Your task to perform on an android device: toggle data saver in the chrome app Image 0: 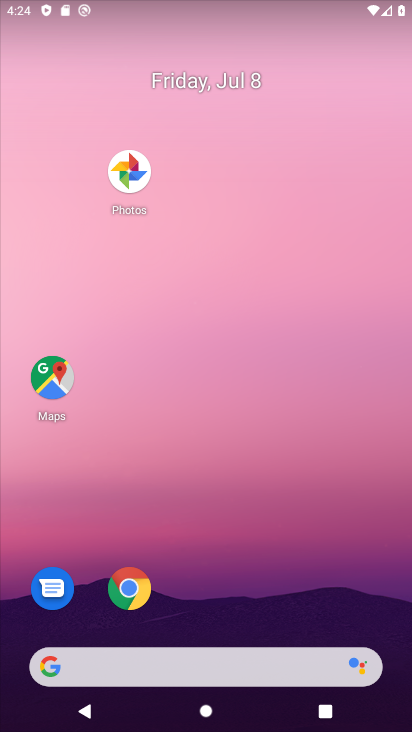
Step 0: drag from (248, 729) to (186, 2)
Your task to perform on an android device: toggle data saver in the chrome app Image 1: 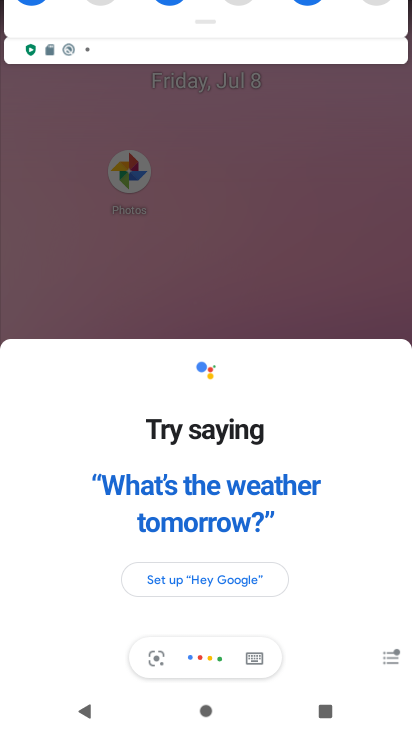
Step 1: click (292, 206)
Your task to perform on an android device: toggle data saver in the chrome app Image 2: 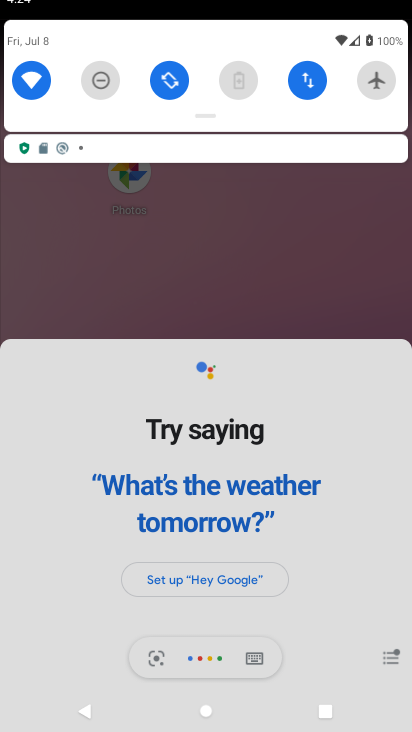
Step 2: press back button
Your task to perform on an android device: toggle data saver in the chrome app Image 3: 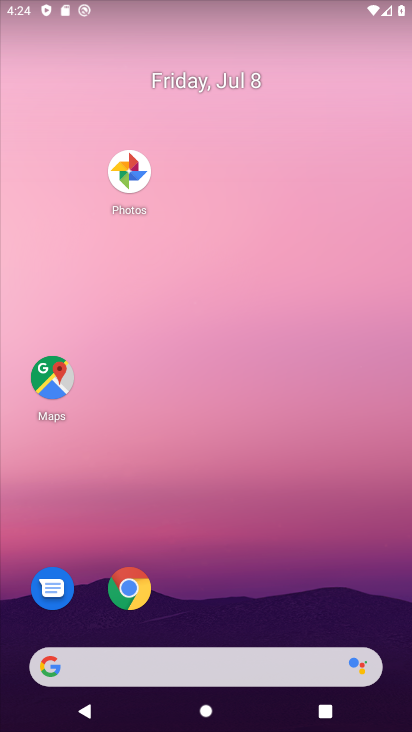
Step 3: drag from (275, 718) to (133, 48)
Your task to perform on an android device: toggle data saver in the chrome app Image 4: 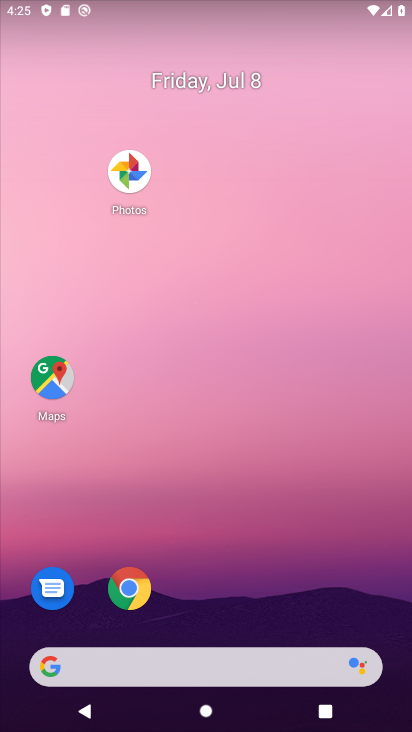
Step 4: click (220, 89)
Your task to perform on an android device: toggle data saver in the chrome app Image 5: 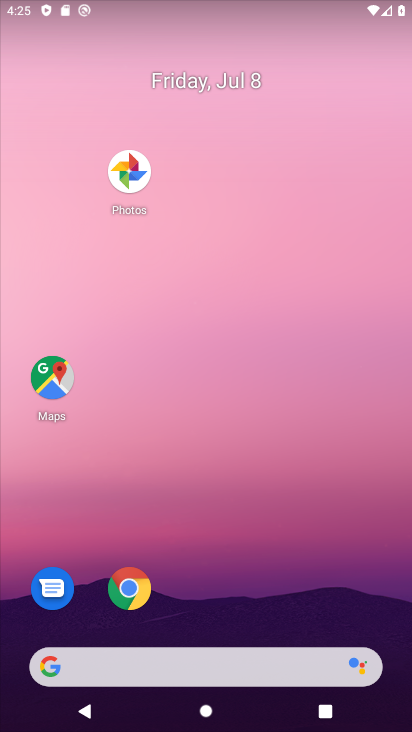
Step 5: drag from (272, 635) to (184, 7)
Your task to perform on an android device: toggle data saver in the chrome app Image 6: 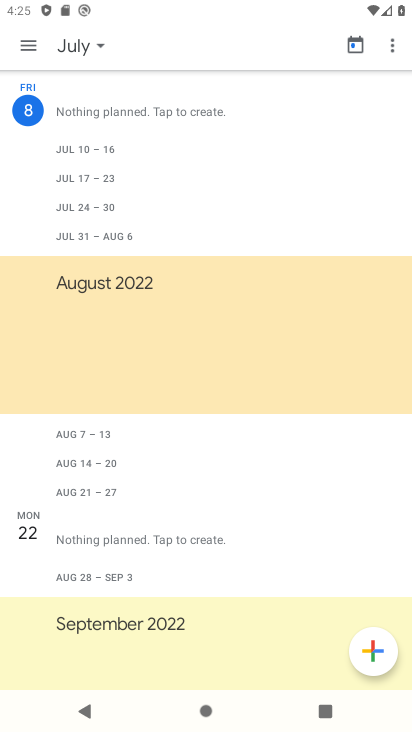
Step 6: drag from (302, 536) to (200, 100)
Your task to perform on an android device: toggle data saver in the chrome app Image 7: 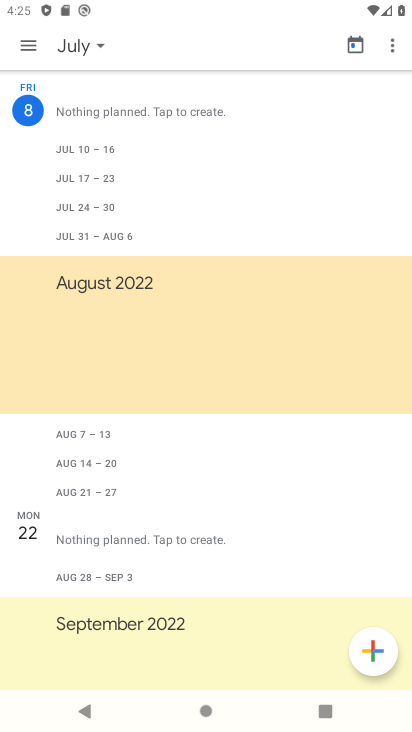
Step 7: press back button
Your task to perform on an android device: toggle data saver in the chrome app Image 8: 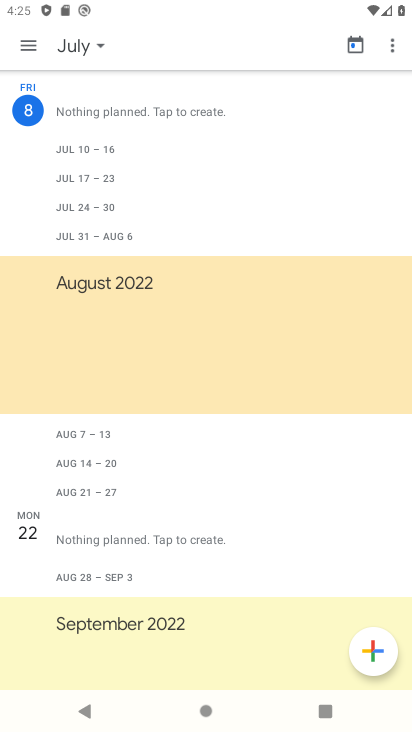
Step 8: press back button
Your task to perform on an android device: toggle data saver in the chrome app Image 9: 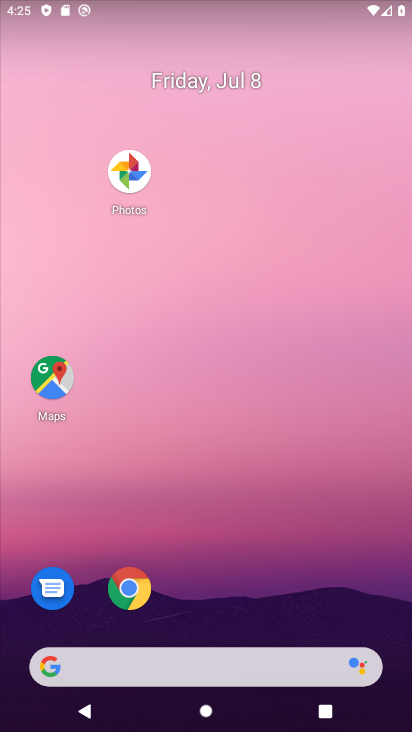
Step 9: drag from (283, 704) to (77, 3)
Your task to perform on an android device: toggle data saver in the chrome app Image 10: 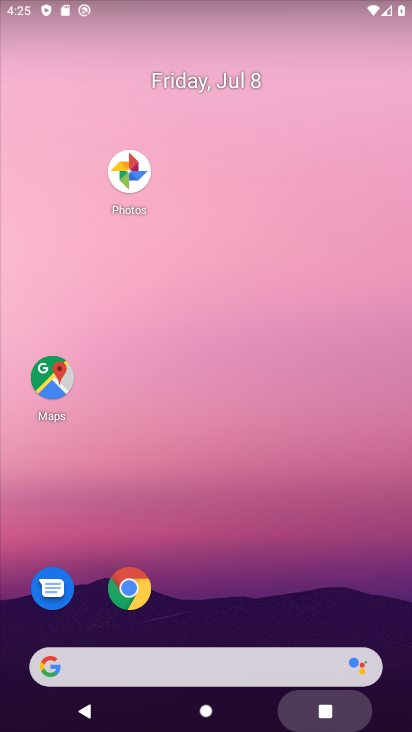
Step 10: drag from (251, 606) to (114, 148)
Your task to perform on an android device: toggle data saver in the chrome app Image 11: 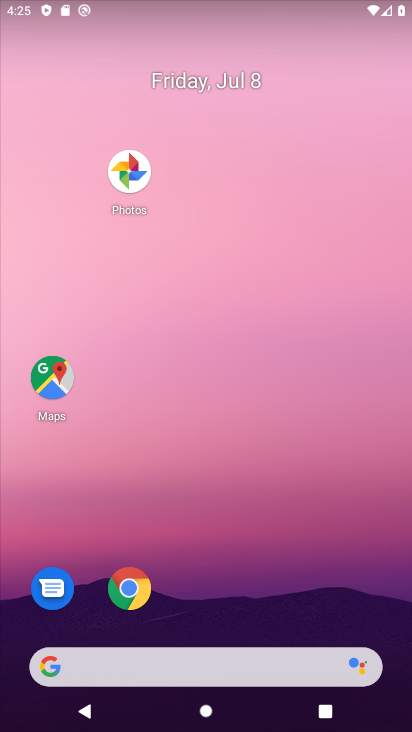
Step 11: drag from (256, 631) to (176, 62)
Your task to perform on an android device: toggle data saver in the chrome app Image 12: 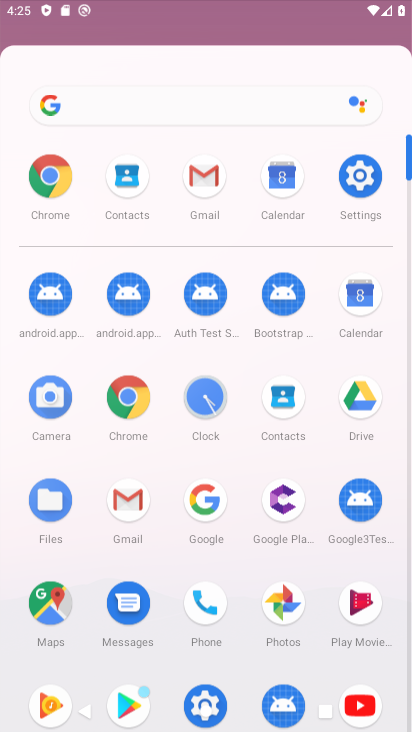
Step 12: drag from (287, 594) to (191, 20)
Your task to perform on an android device: toggle data saver in the chrome app Image 13: 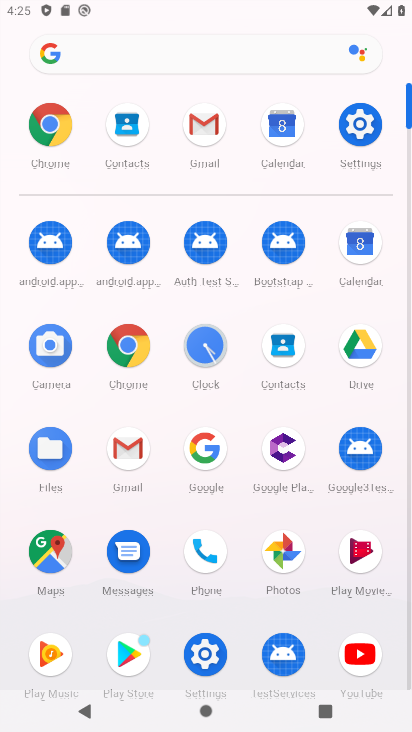
Step 13: click (133, 346)
Your task to perform on an android device: toggle data saver in the chrome app Image 14: 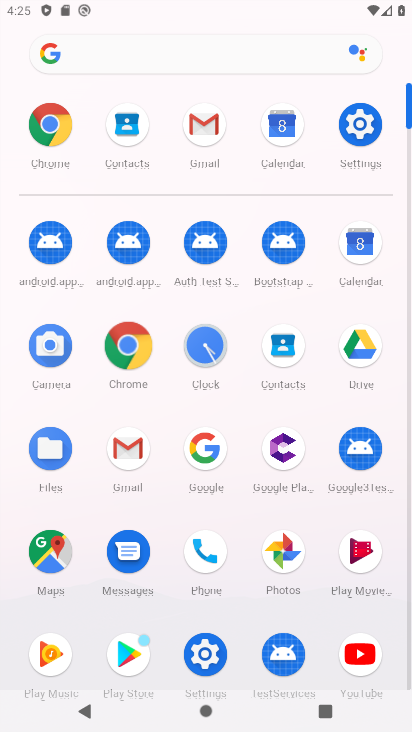
Step 14: click (133, 346)
Your task to perform on an android device: toggle data saver in the chrome app Image 15: 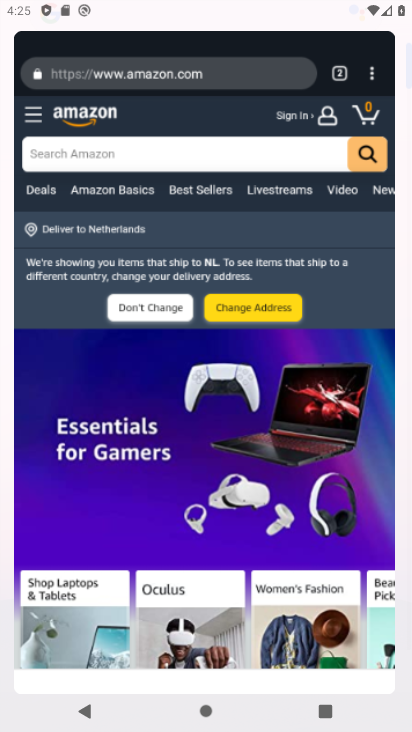
Step 15: click (129, 342)
Your task to perform on an android device: toggle data saver in the chrome app Image 16: 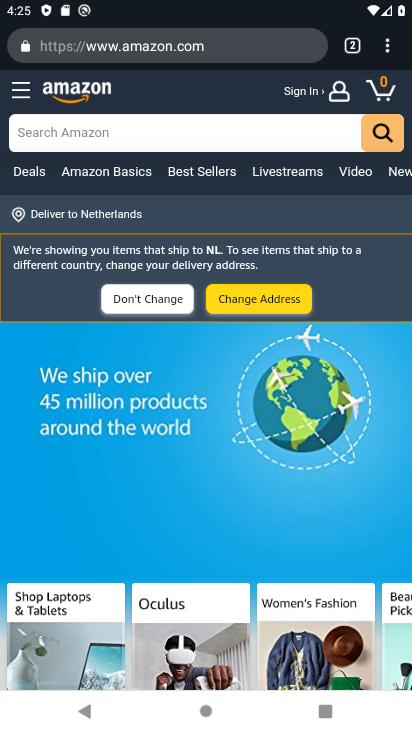
Step 16: drag from (385, 53) to (231, 544)
Your task to perform on an android device: toggle data saver in the chrome app Image 17: 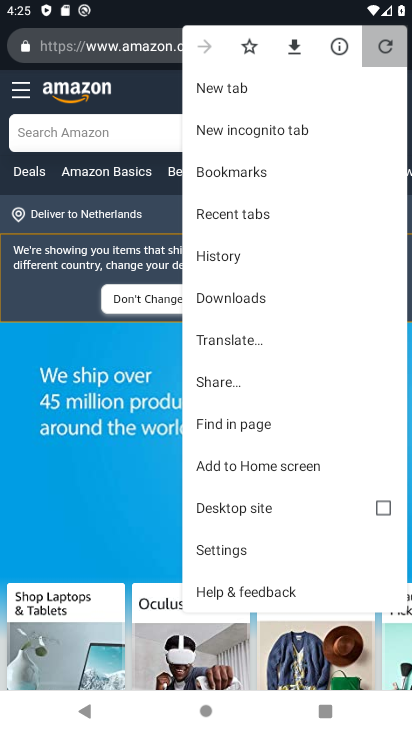
Step 17: click (242, 548)
Your task to perform on an android device: toggle data saver in the chrome app Image 18: 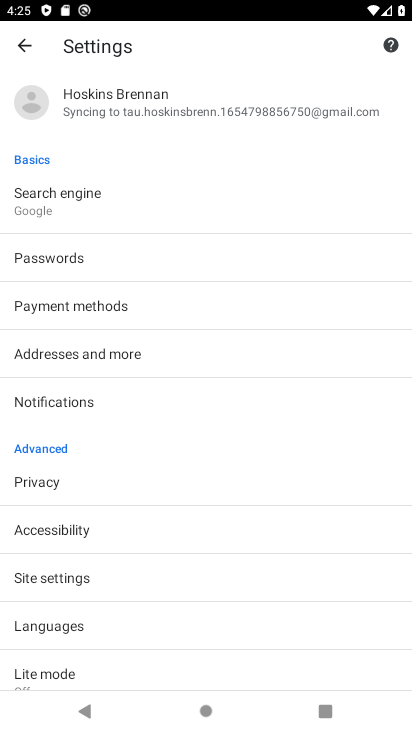
Step 18: drag from (69, 621) to (39, 208)
Your task to perform on an android device: toggle data saver in the chrome app Image 19: 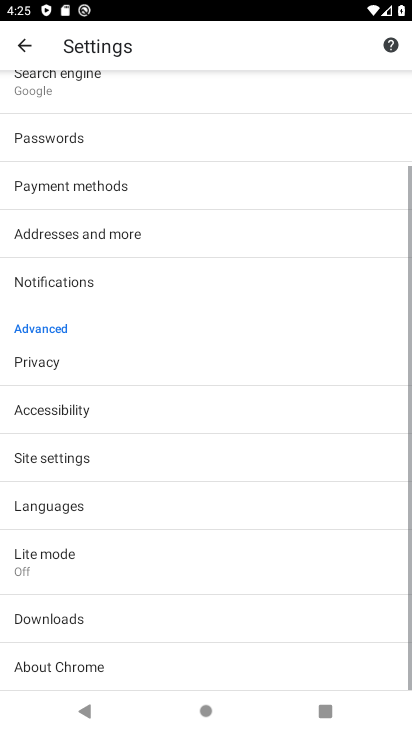
Step 19: drag from (113, 520) to (81, 88)
Your task to perform on an android device: toggle data saver in the chrome app Image 20: 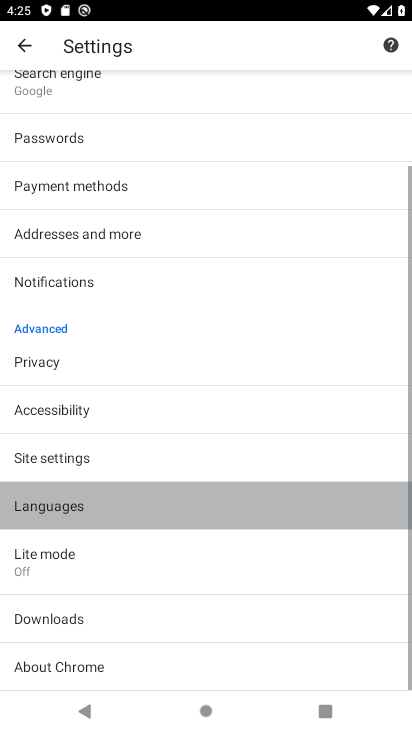
Step 20: click (103, 75)
Your task to perform on an android device: toggle data saver in the chrome app Image 21: 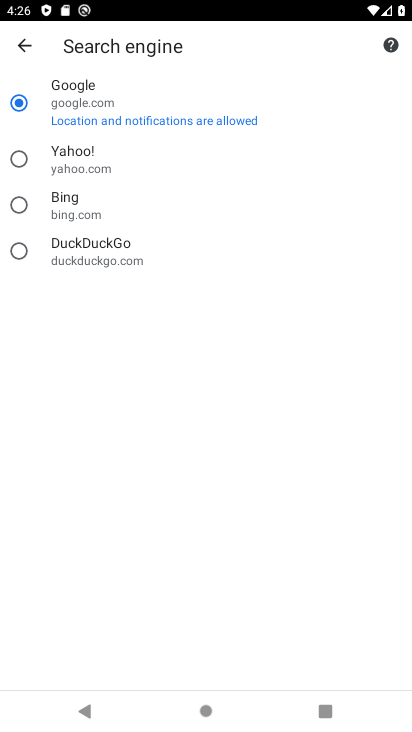
Step 21: click (23, 49)
Your task to perform on an android device: toggle data saver in the chrome app Image 22: 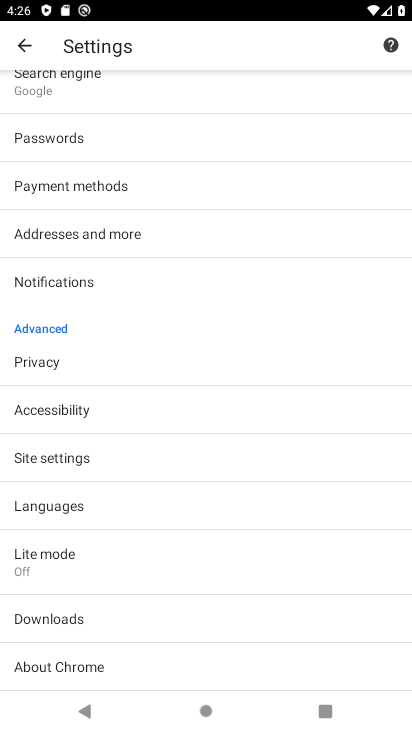
Step 22: click (13, 45)
Your task to perform on an android device: toggle data saver in the chrome app Image 23: 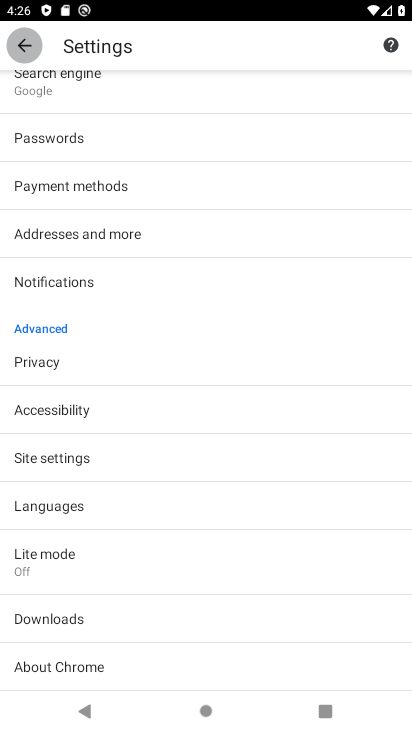
Step 23: click (21, 43)
Your task to perform on an android device: toggle data saver in the chrome app Image 24: 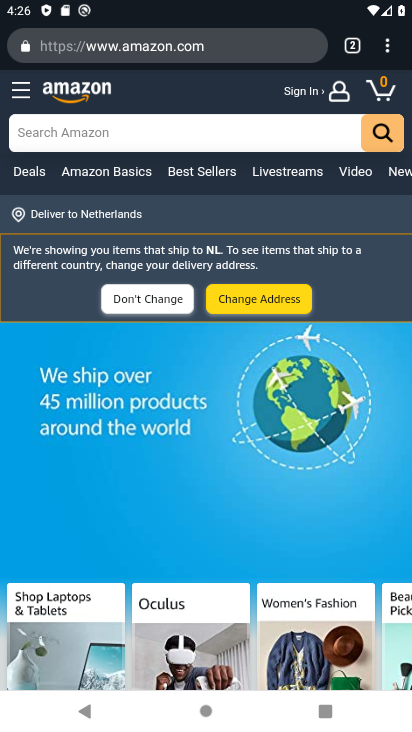
Step 24: drag from (380, 53) to (223, 551)
Your task to perform on an android device: toggle data saver in the chrome app Image 25: 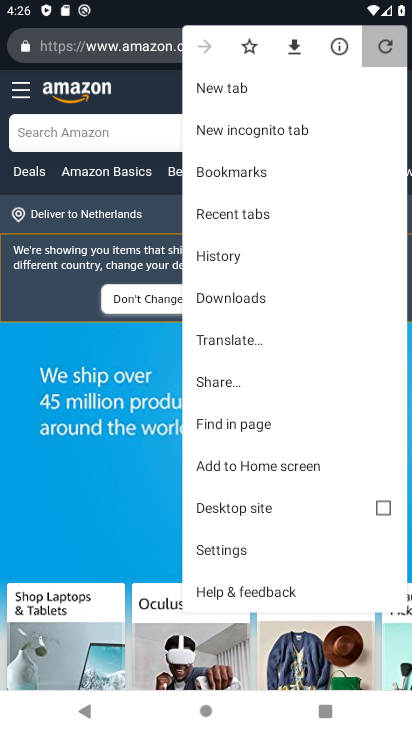
Step 25: click (220, 542)
Your task to perform on an android device: toggle data saver in the chrome app Image 26: 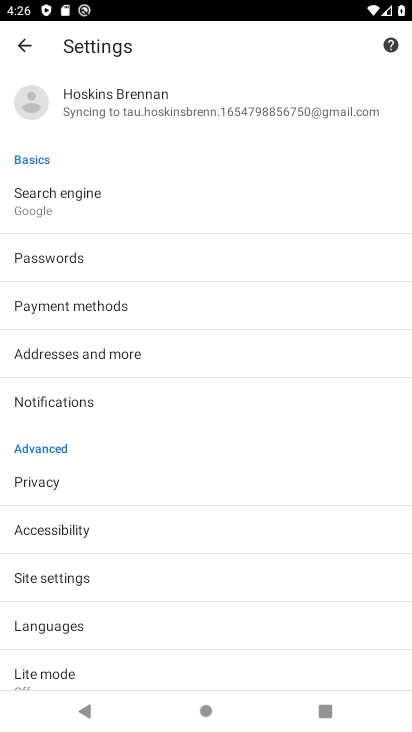
Step 26: drag from (117, 561) to (59, 288)
Your task to perform on an android device: toggle data saver in the chrome app Image 27: 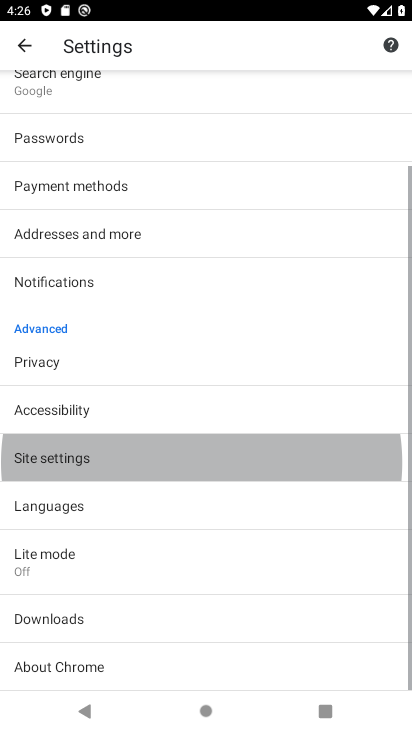
Step 27: drag from (105, 510) to (51, 149)
Your task to perform on an android device: toggle data saver in the chrome app Image 28: 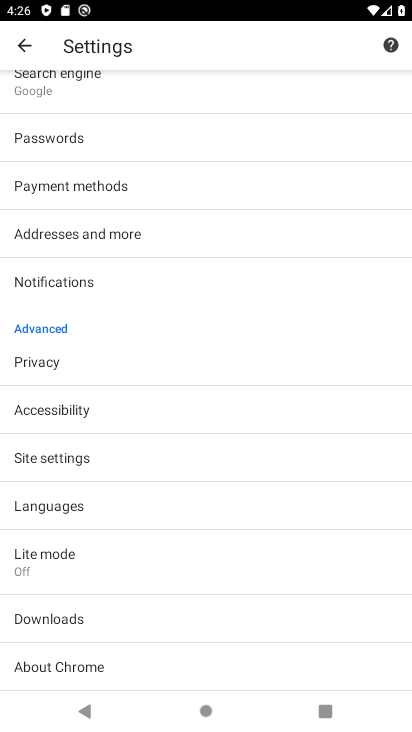
Step 28: click (32, 558)
Your task to perform on an android device: toggle data saver in the chrome app Image 29: 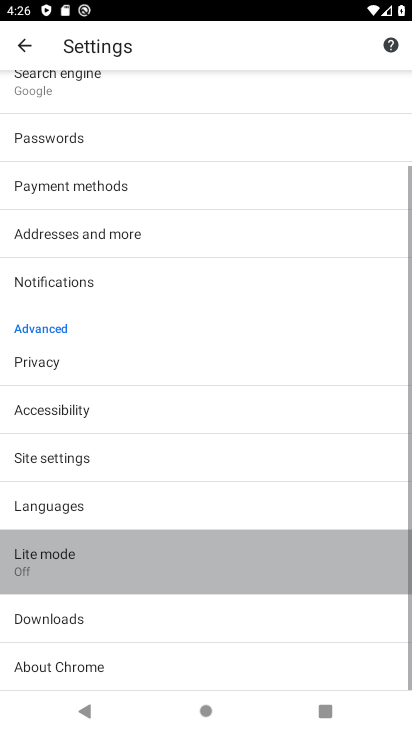
Step 29: click (31, 558)
Your task to perform on an android device: toggle data saver in the chrome app Image 30: 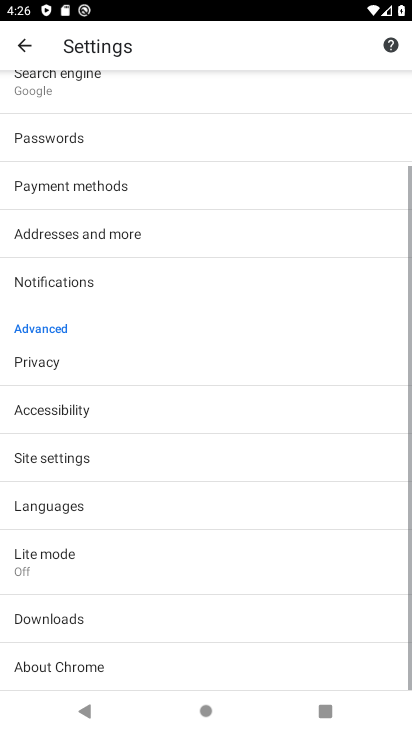
Step 30: click (32, 558)
Your task to perform on an android device: toggle data saver in the chrome app Image 31: 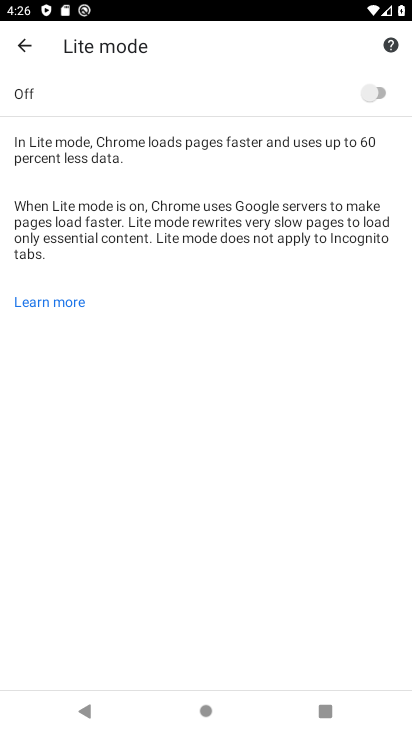
Step 31: task complete